Your task to perform on an android device: Search for vegetarian restaurants on Maps Image 0: 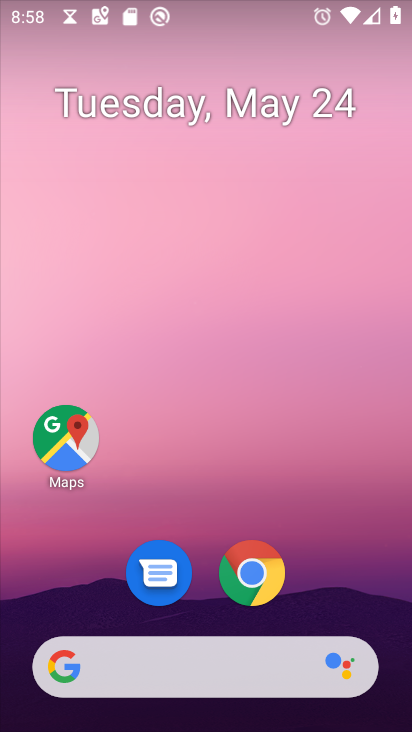
Step 0: drag from (324, 355) to (53, 38)
Your task to perform on an android device: Search for vegetarian restaurants on Maps Image 1: 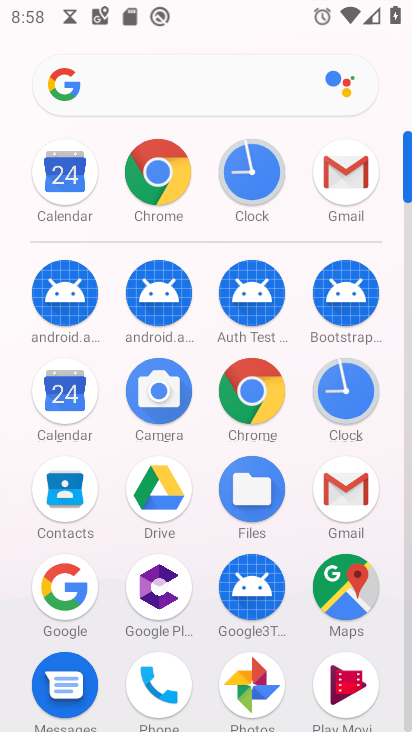
Step 1: click (356, 584)
Your task to perform on an android device: Search for vegetarian restaurants on Maps Image 2: 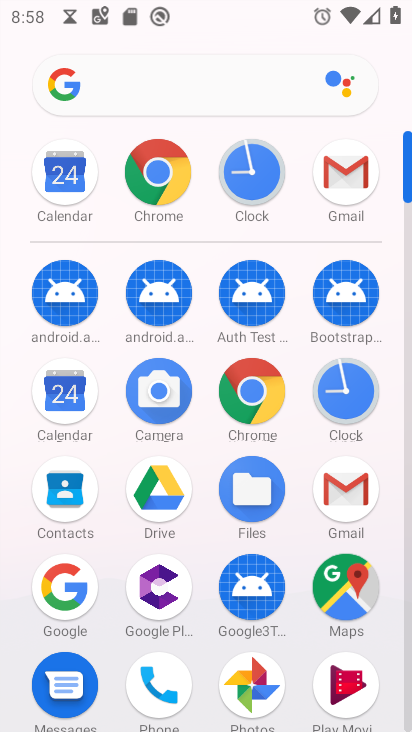
Step 2: click (356, 584)
Your task to perform on an android device: Search for vegetarian restaurants on Maps Image 3: 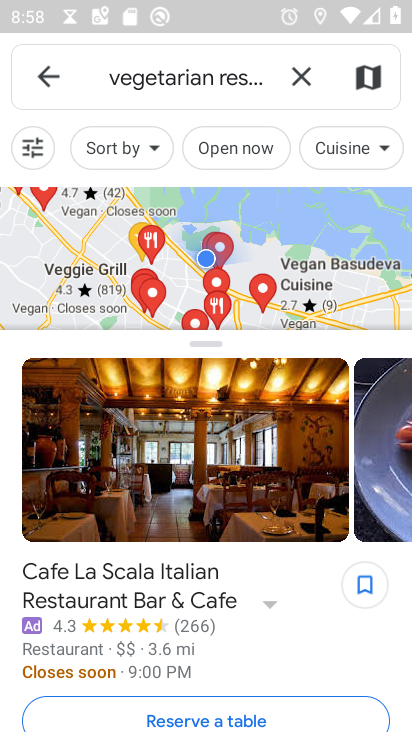
Step 3: task complete